Your task to perform on an android device: all mails in gmail Image 0: 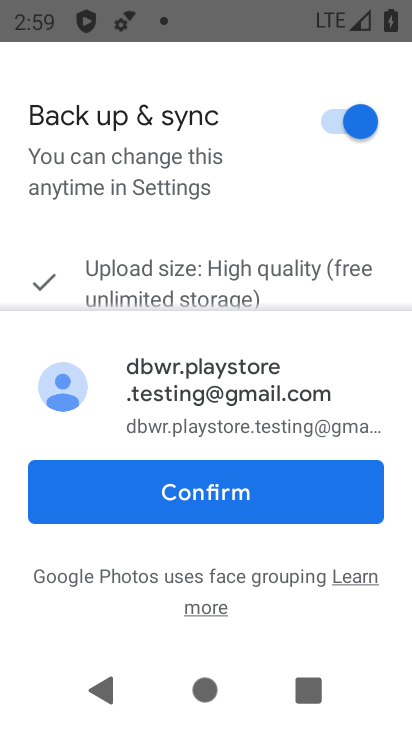
Step 0: press home button
Your task to perform on an android device: all mails in gmail Image 1: 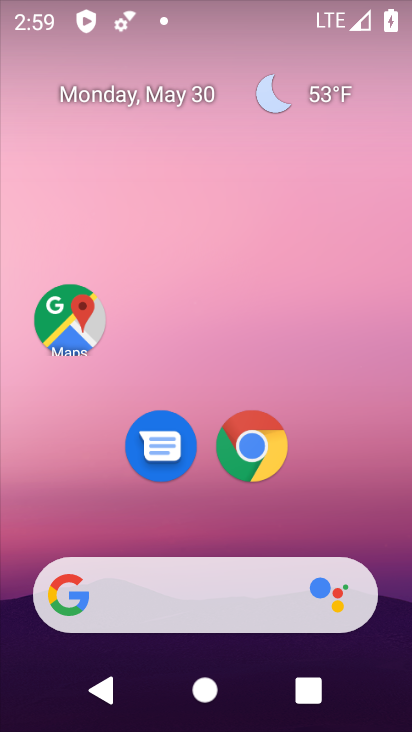
Step 1: drag from (310, 519) to (209, 44)
Your task to perform on an android device: all mails in gmail Image 2: 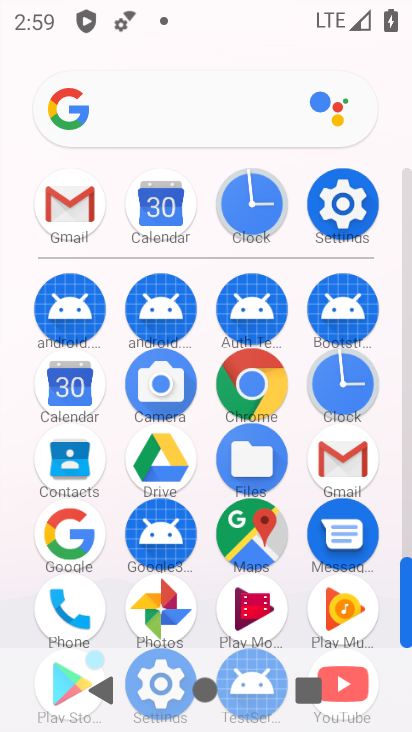
Step 2: click (69, 205)
Your task to perform on an android device: all mails in gmail Image 3: 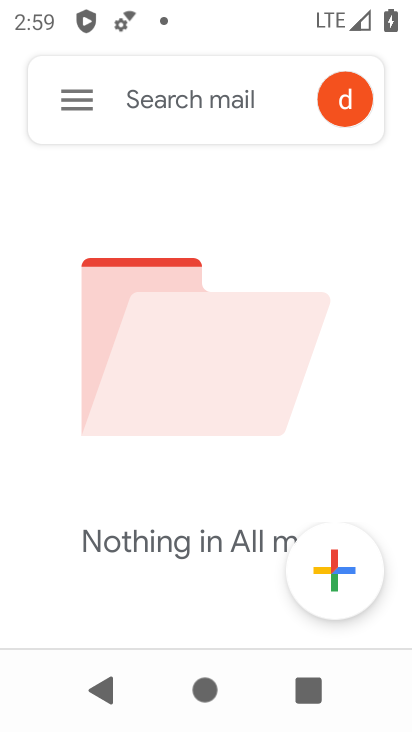
Step 3: click (70, 104)
Your task to perform on an android device: all mails in gmail Image 4: 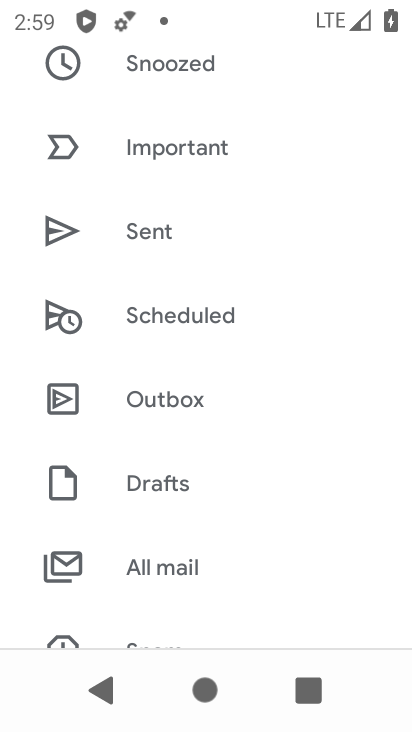
Step 4: click (161, 569)
Your task to perform on an android device: all mails in gmail Image 5: 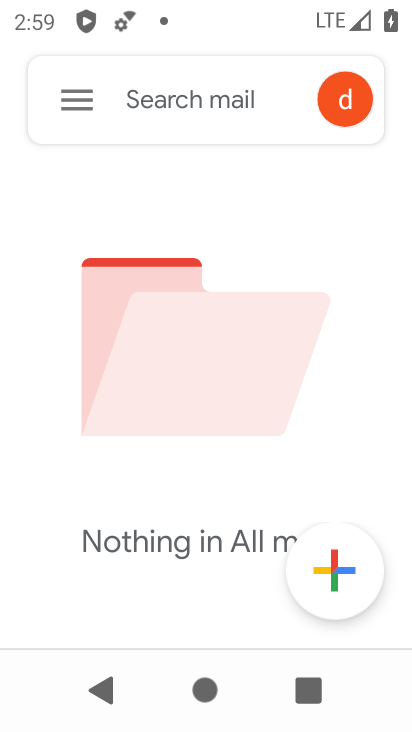
Step 5: task complete